Your task to perform on an android device: change alarm snooze length Image 0: 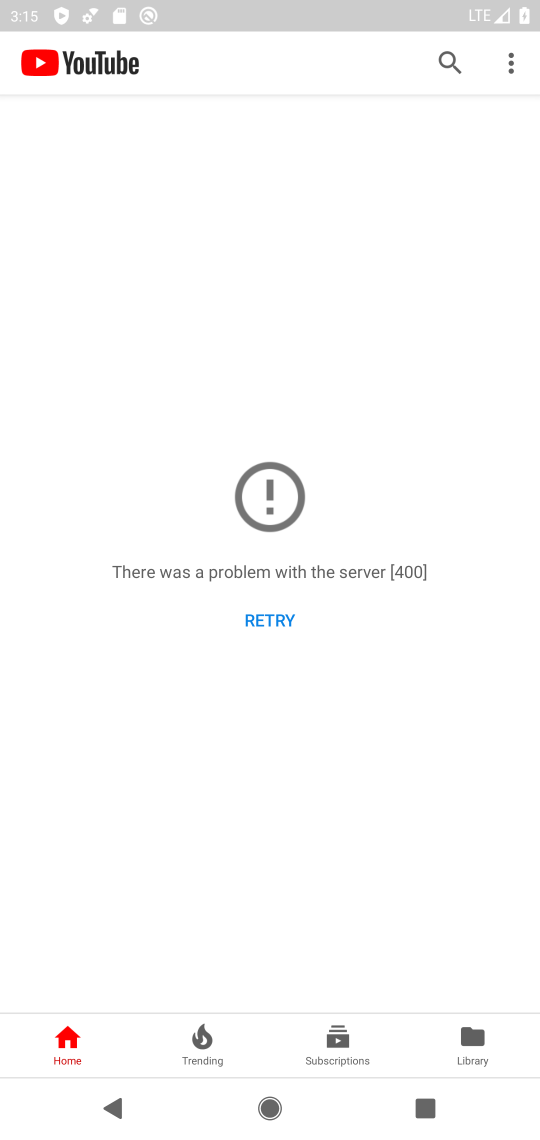
Step 0: press home button
Your task to perform on an android device: change alarm snooze length Image 1: 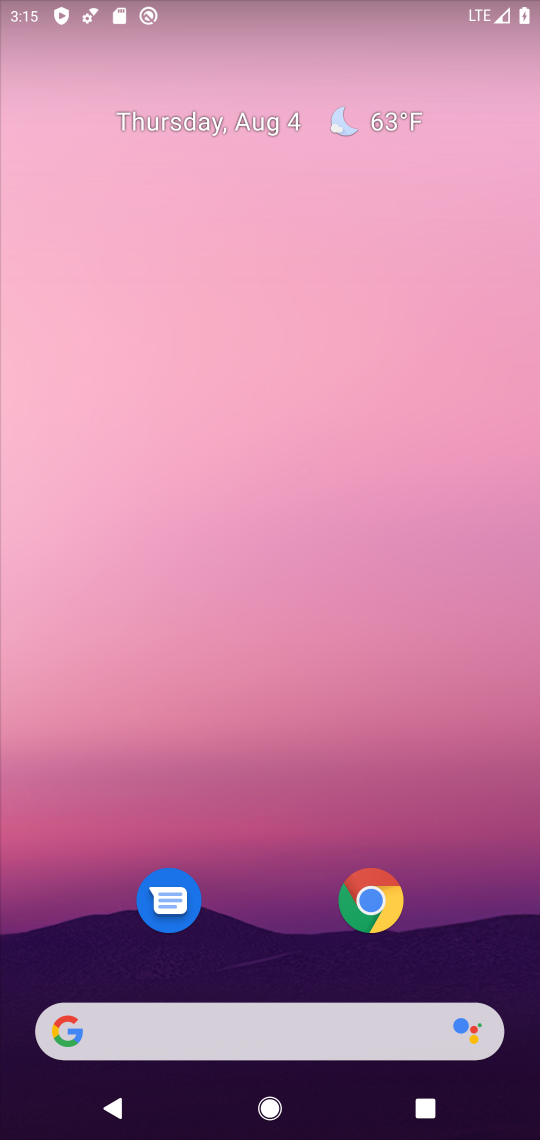
Step 1: drag from (494, 943) to (355, 94)
Your task to perform on an android device: change alarm snooze length Image 2: 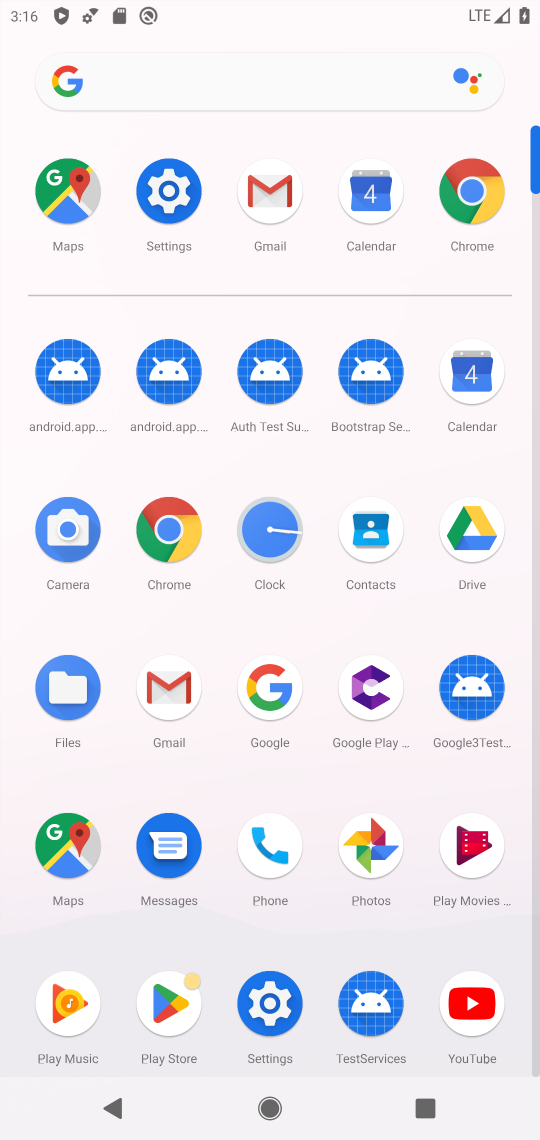
Step 2: click (281, 541)
Your task to perform on an android device: change alarm snooze length Image 3: 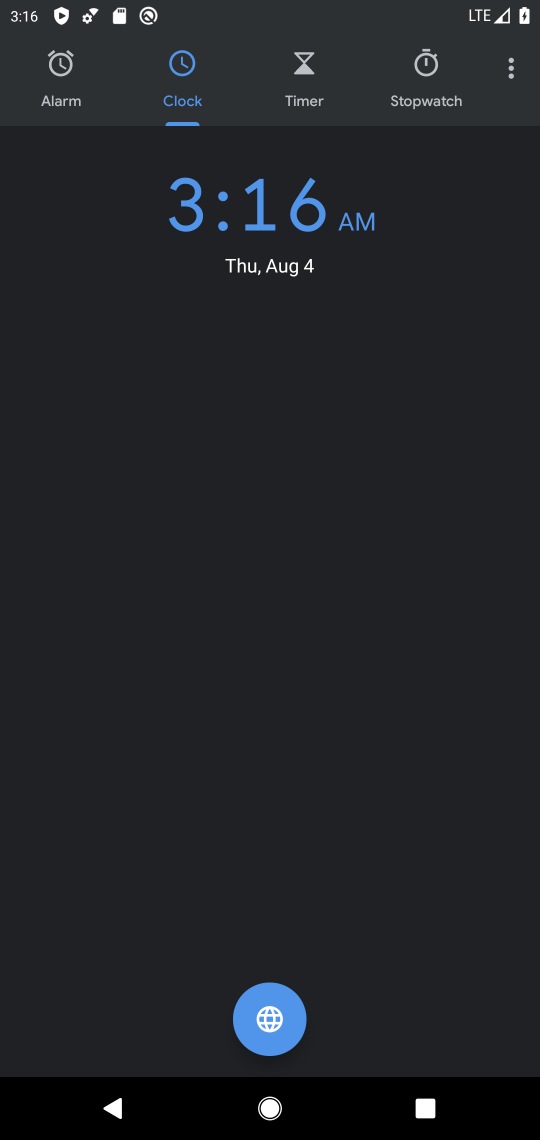
Step 3: click (522, 70)
Your task to perform on an android device: change alarm snooze length Image 4: 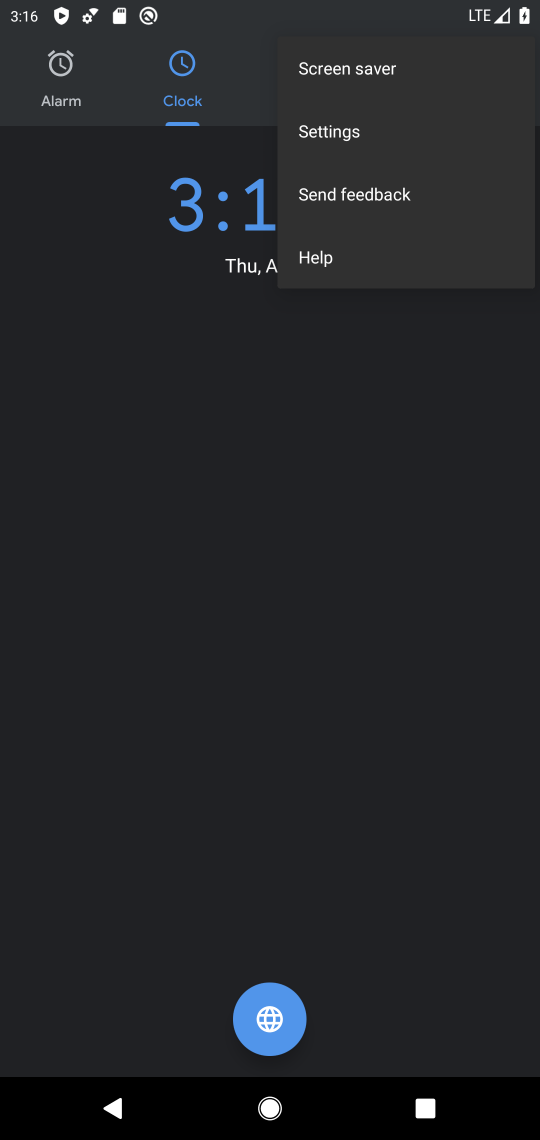
Step 4: click (374, 144)
Your task to perform on an android device: change alarm snooze length Image 5: 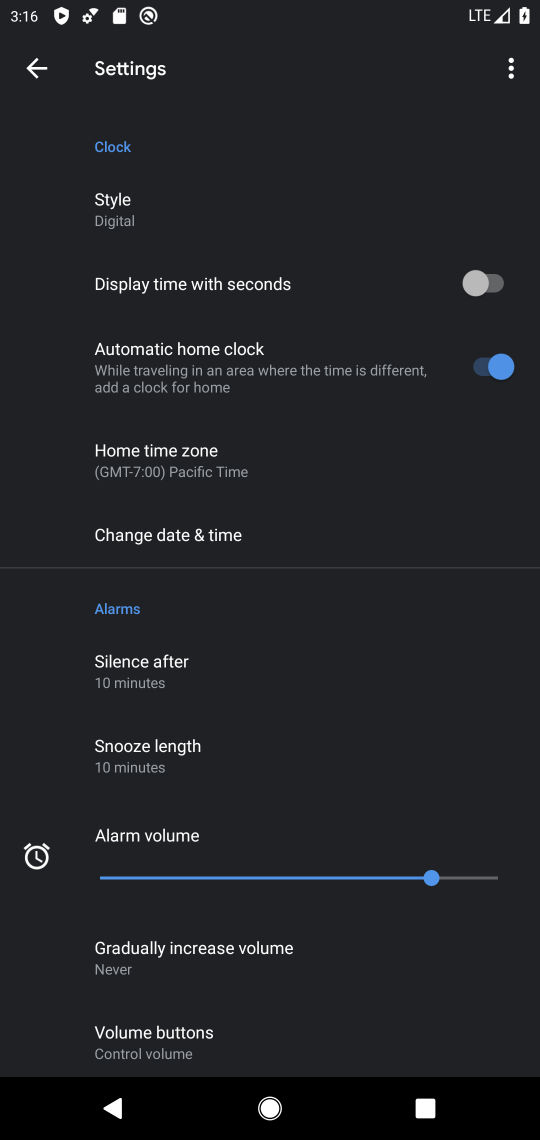
Step 5: drag from (262, 988) to (202, 759)
Your task to perform on an android device: change alarm snooze length Image 6: 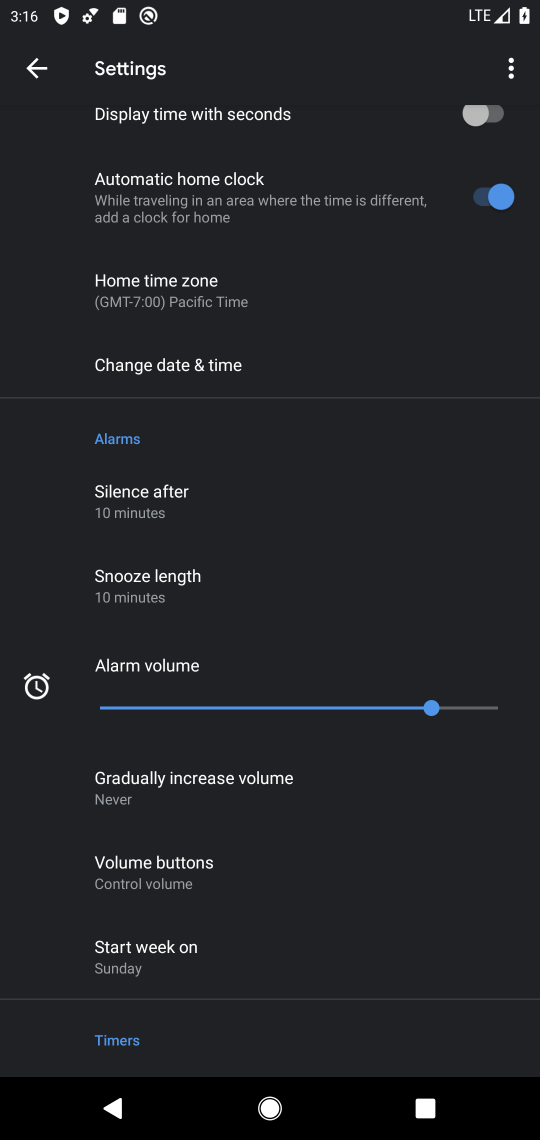
Step 6: click (197, 564)
Your task to perform on an android device: change alarm snooze length Image 7: 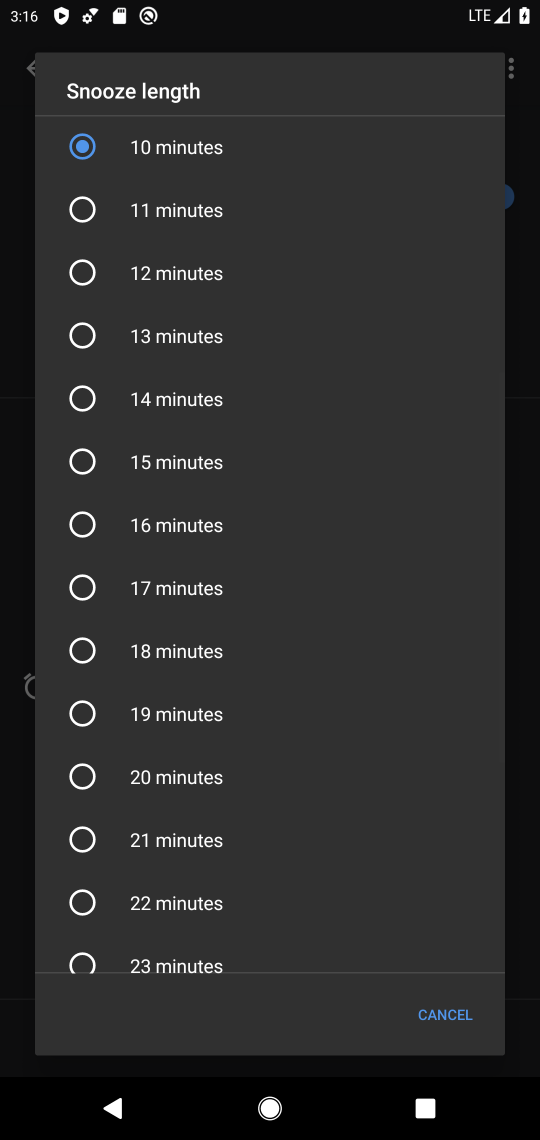
Step 7: click (226, 744)
Your task to perform on an android device: change alarm snooze length Image 8: 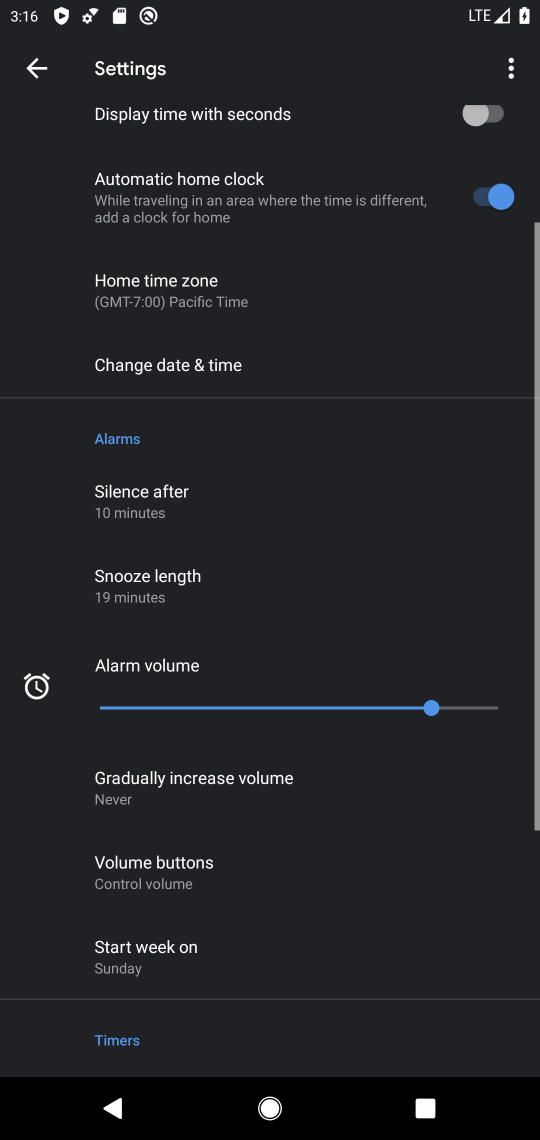
Step 8: task complete